Your task to perform on an android device: toggle show notifications on the lock screen Image 0: 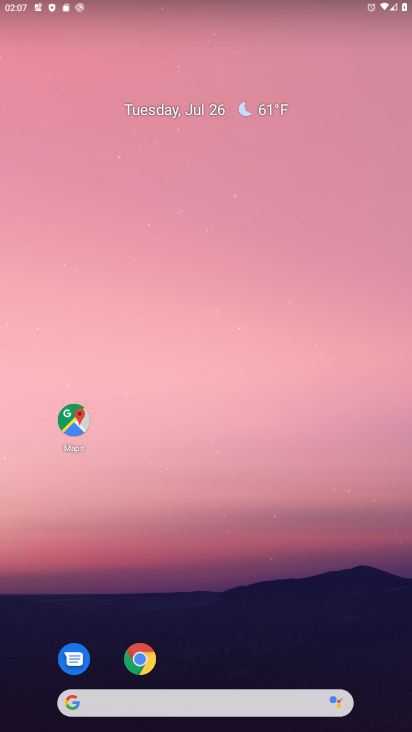
Step 0: drag from (271, 591) to (213, 82)
Your task to perform on an android device: toggle show notifications on the lock screen Image 1: 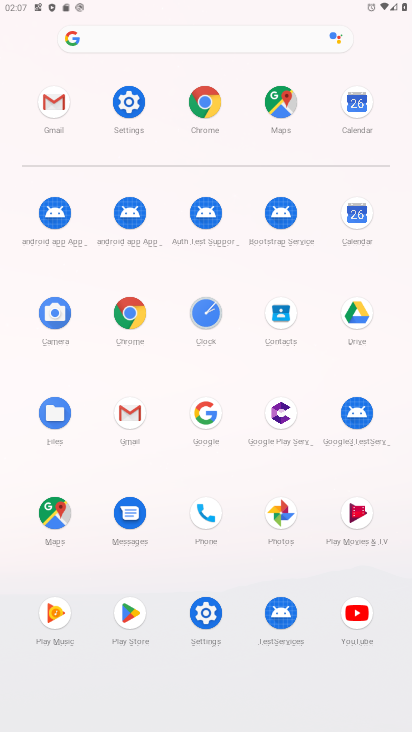
Step 1: click (129, 94)
Your task to perform on an android device: toggle show notifications on the lock screen Image 2: 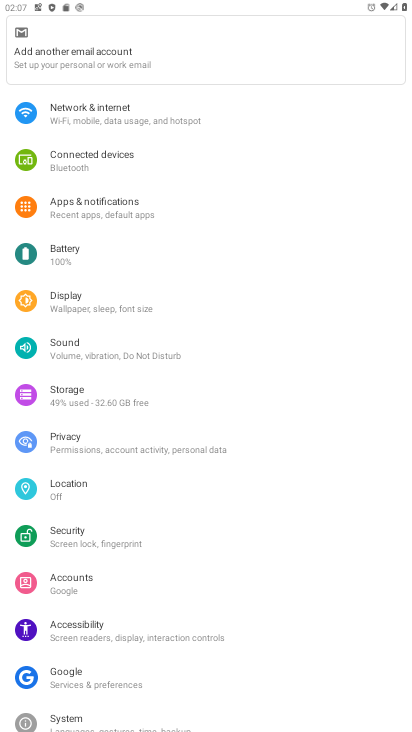
Step 2: click (106, 206)
Your task to perform on an android device: toggle show notifications on the lock screen Image 3: 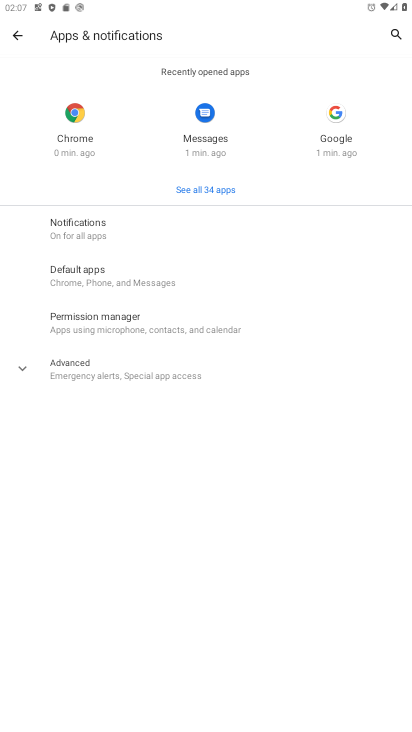
Step 3: click (89, 238)
Your task to perform on an android device: toggle show notifications on the lock screen Image 4: 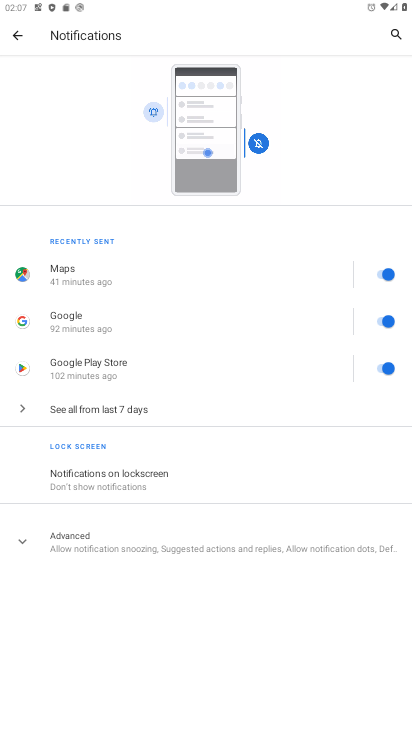
Step 4: click (138, 477)
Your task to perform on an android device: toggle show notifications on the lock screen Image 5: 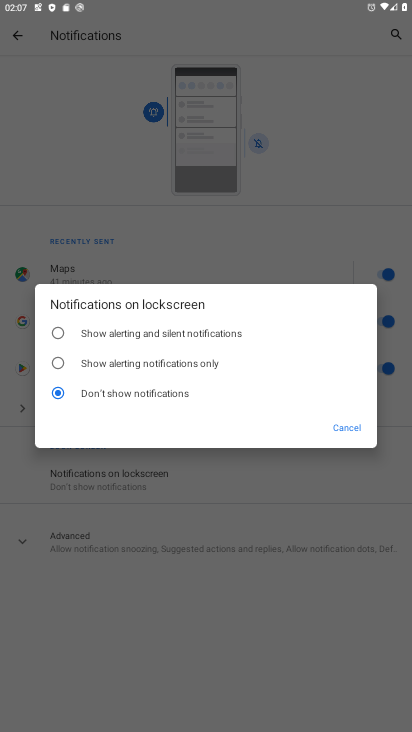
Step 5: click (158, 369)
Your task to perform on an android device: toggle show notifications on the lock screen Image 6: 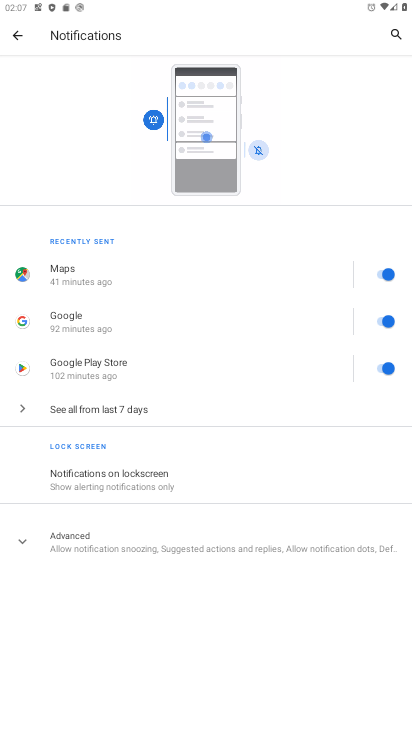
Step 6: task complete